Your task to perform on an android device: Go to calendar. Show me events next week Image 0: 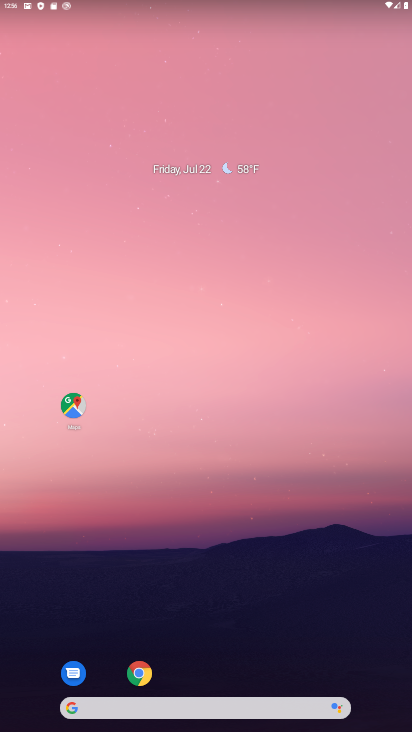
Step 0: drag from (238, 678) to (109, 17)
Your task to perform on an android device: Go to calendar. Show me events next week Image 1: 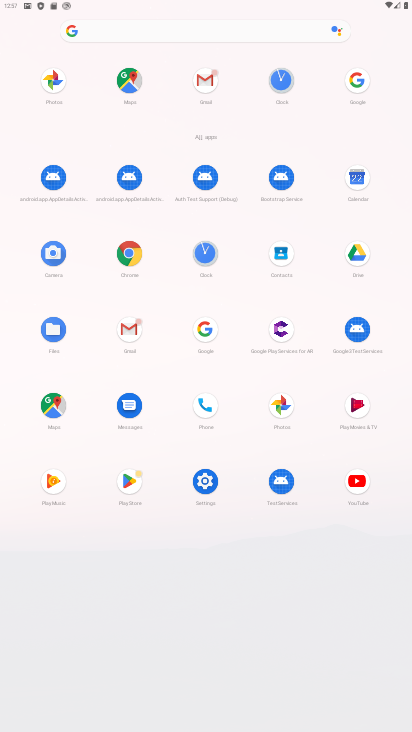
Step 1: click (344, 173)
Your task to perform on an android device: Go to calendar. Show me events next week Image 2: 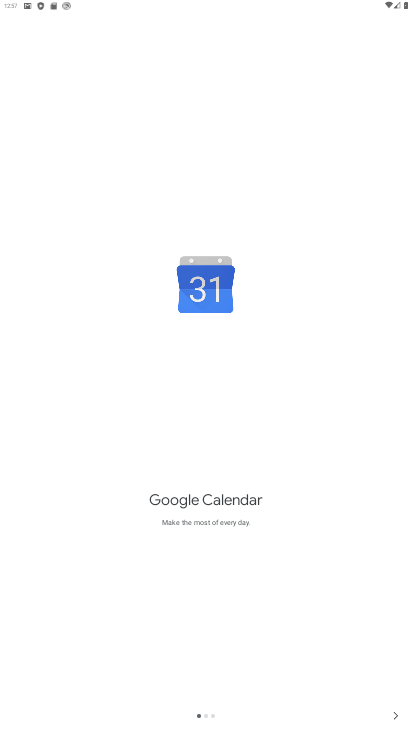
Step 2: click (393, 724)
Your task to perform on an android device: Go to calendar. Show me events next week Image 3: 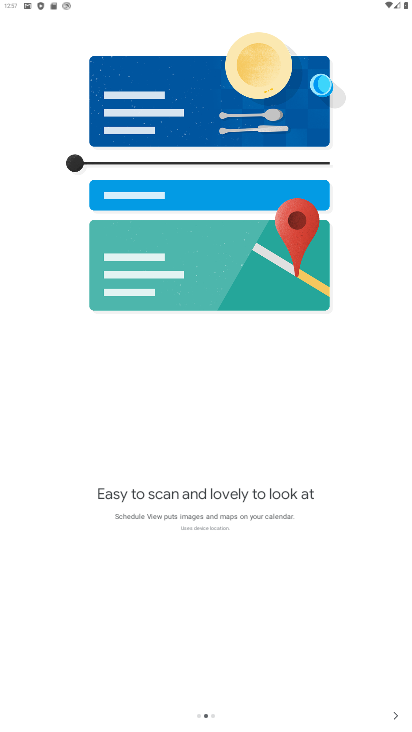
Step 3: click (393, 724)
Your task to perform on an android device: Go to calendar. Show me events next week Image 4: 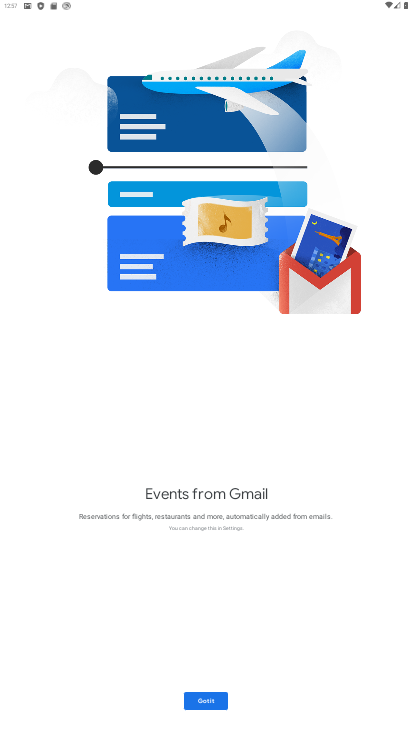
Step 4: click (203, 705)
Your task to perform on an android device: Go to calendar. Show me events next week Image 5: 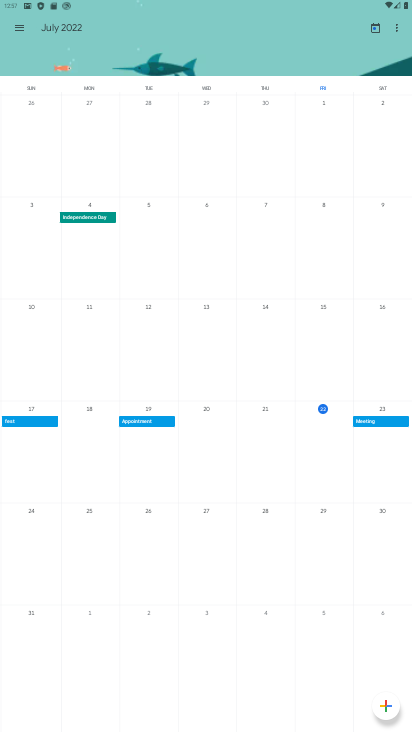
Step 5: click (27, 546)
Your task to perform on an android device: Go to calendar. Show me events next week Image 6: 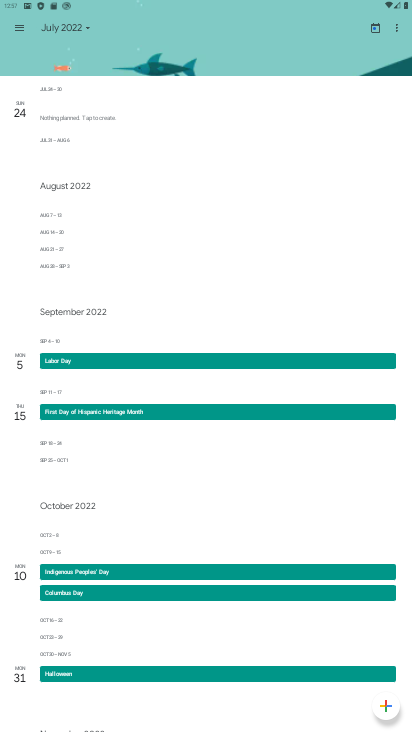
Step 6: task complete